Your task to perform on an android device: Open Reddit.com Image 0: 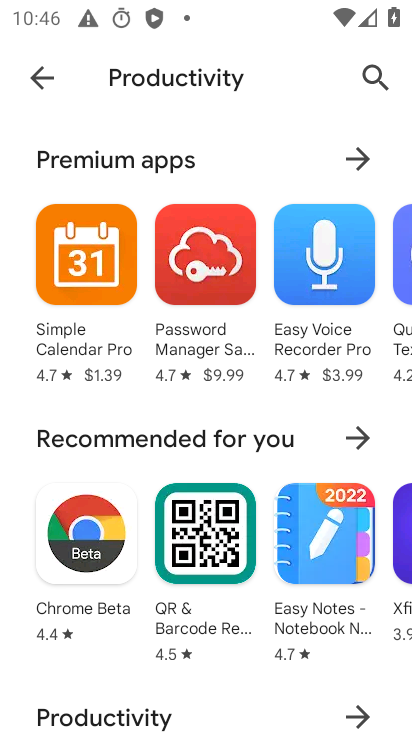
Step 0: press home button
Your task to perform on an android device: Open Reddit.com Image 1: 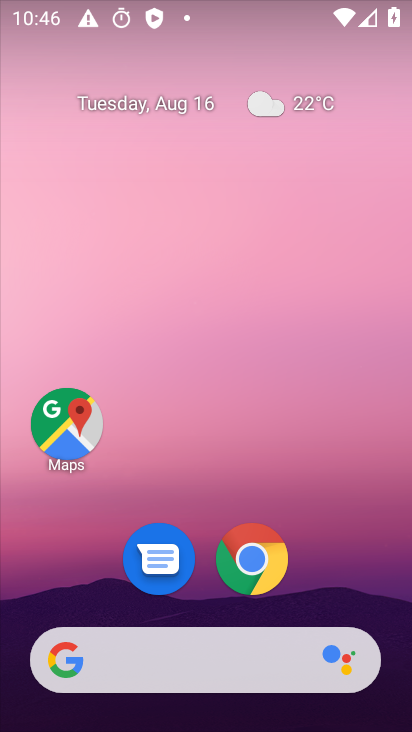
Step 1: click (249, 570)
Your task to perform on an android device: Open Reddit.com Image 2: 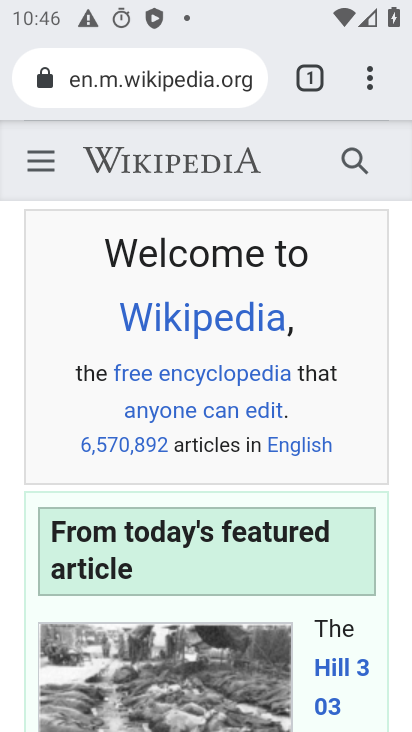
Step 2: click (126, 78)
Your task to perform on an android device: Open Reddit.com Image 3: 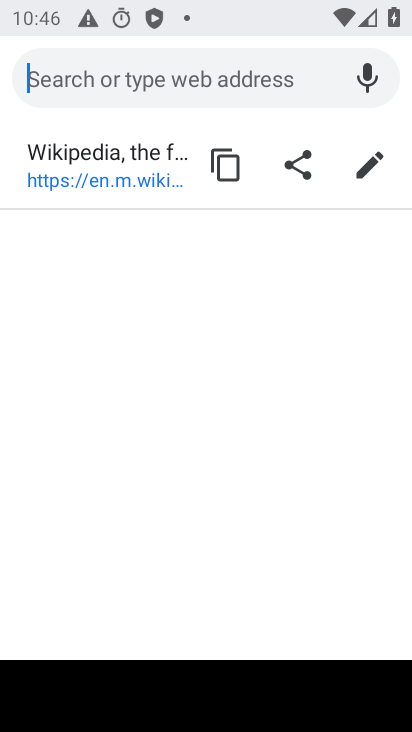
Step 3: type "www.reddit.com"
Your task to perform on an android device: Open Reddit.com Image 4: 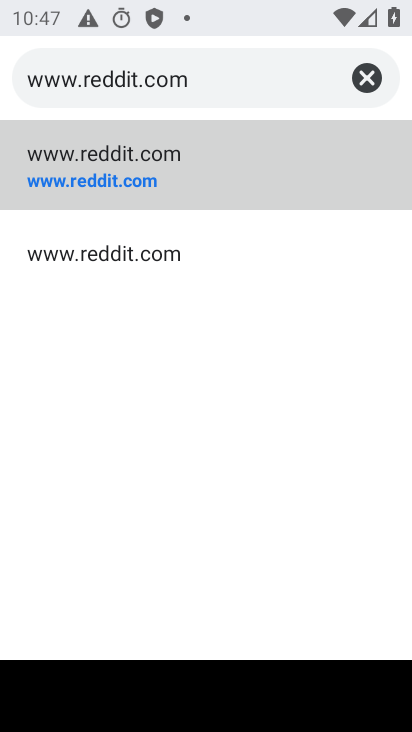
Step 4: click (111, 184)
Your task to perform on an android device: Open Reddit.com Image 5: 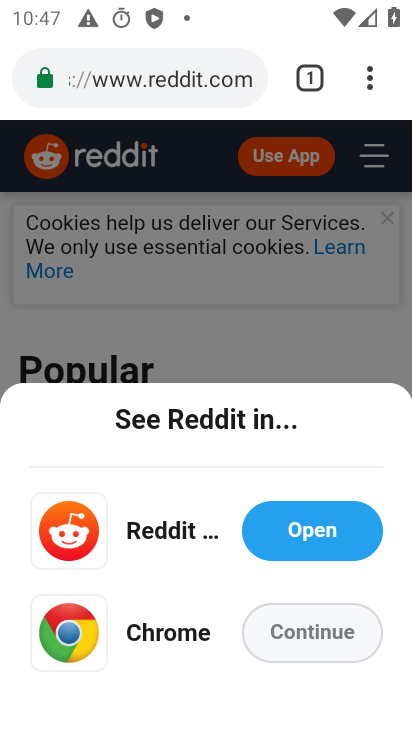
Step 5: task complete